Your task to perform on an android device: change the clock display to digital Image 0: 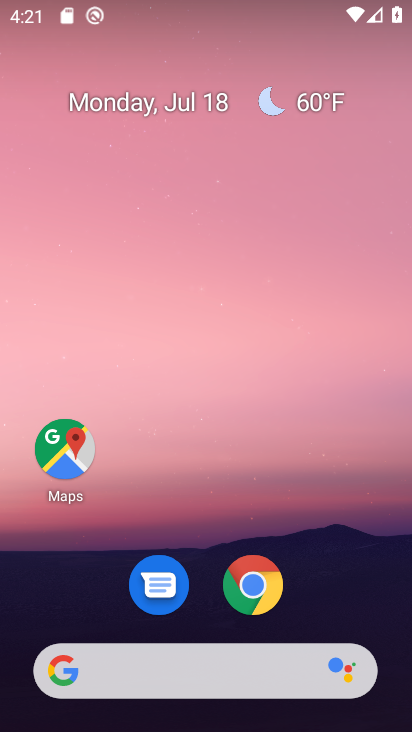
Step 0: drag from (343, 580) to (396, 14)
Your task to perform on an android device: change the clock display to digital Image 1: 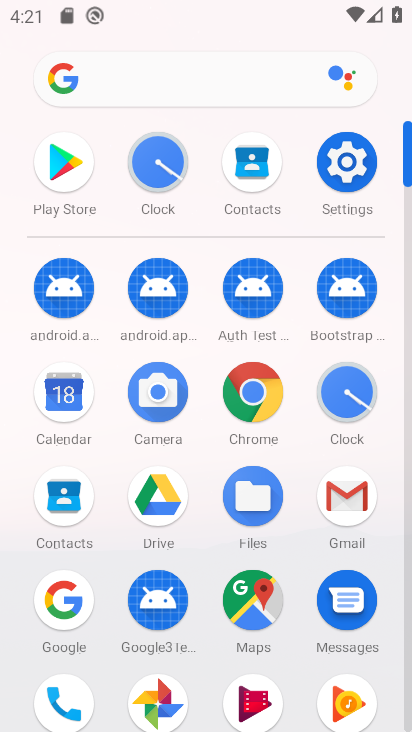
Step 1: click (160, 163)
Your task to perform on an android device: change the clock display to digital Image 2: 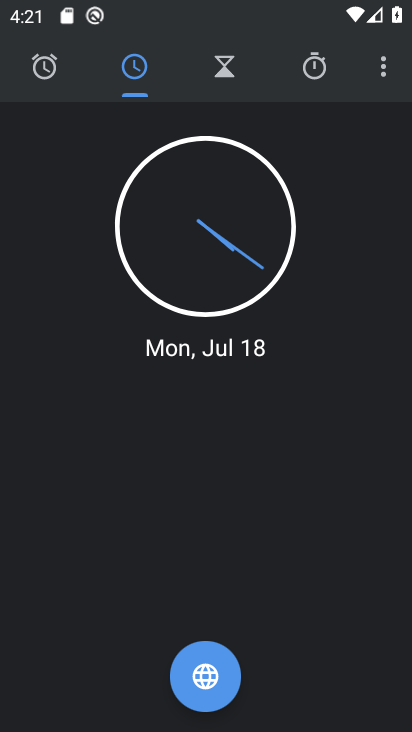
Step 2: click (377, 69)
Your task to perform on an android device: change the clock display to digital Image 3: 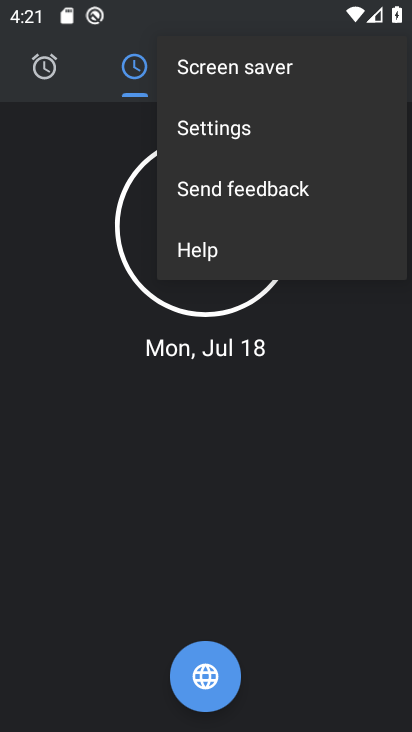
Step 3: click (297, 123)
Your task to perform on an android device: change the clock display to digital Image 4: 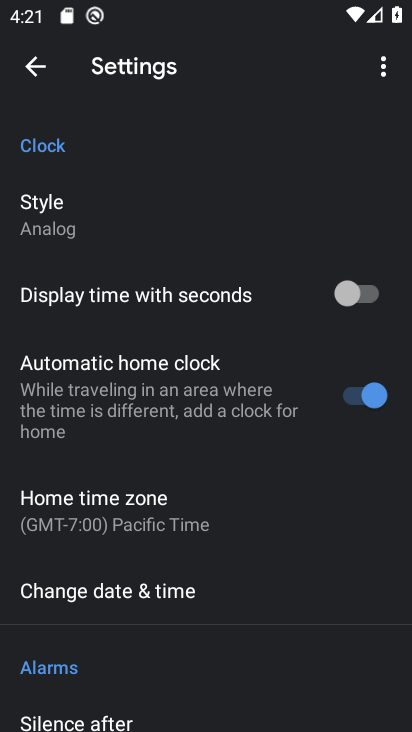
Step 4: click (70, 218)
Your task to perform on an android device: change the clock display to digital Image 5: 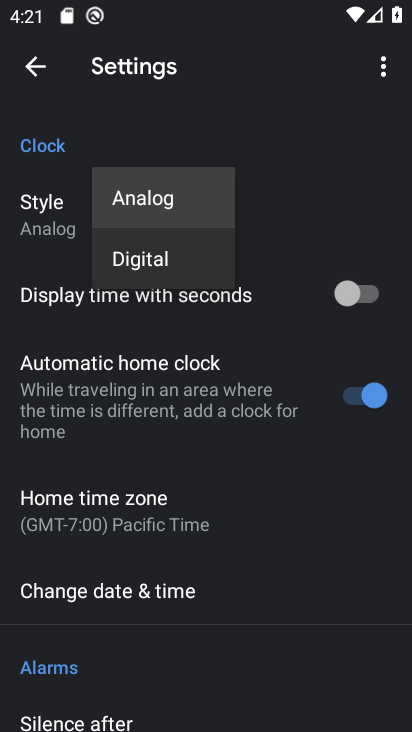
Step 5: click (118, 255)
Your task to perform on an android device: change the clock display to digital Image 6: 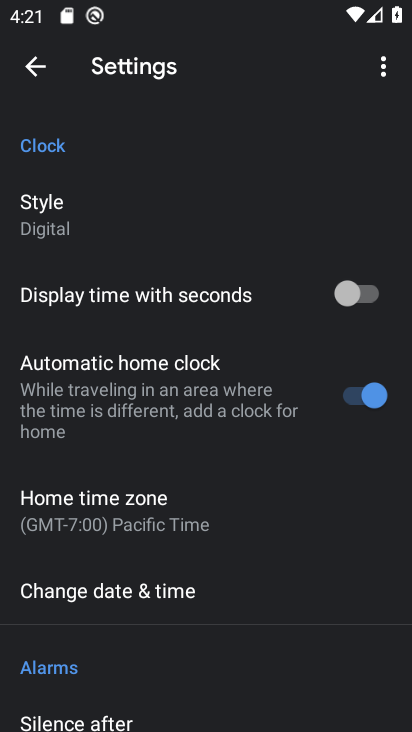
Step 6: task complete